Your task to perform on an android device: open a bookmark in the chrome app Image 0: 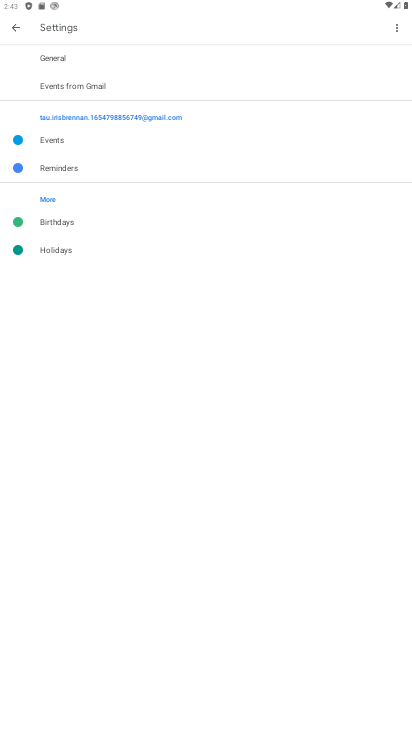
Step 0: press home button
Your task to perform on an android device: open a bookmark in the chrome app Image 1: 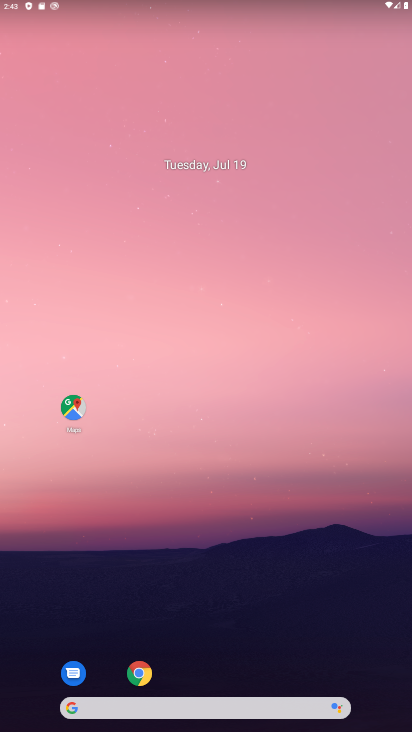
Step 1: drag from (248, 669) to (291, 172)
Your task to perform on an android device: open a bookmark in the chrome app Image 2: 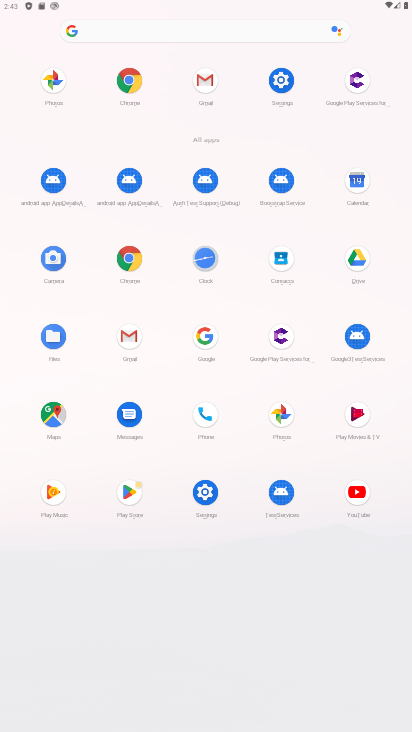
Step 2: click (138, 269)
Your task to perform on an android device: open a bookmark in the chrome app Image 3: 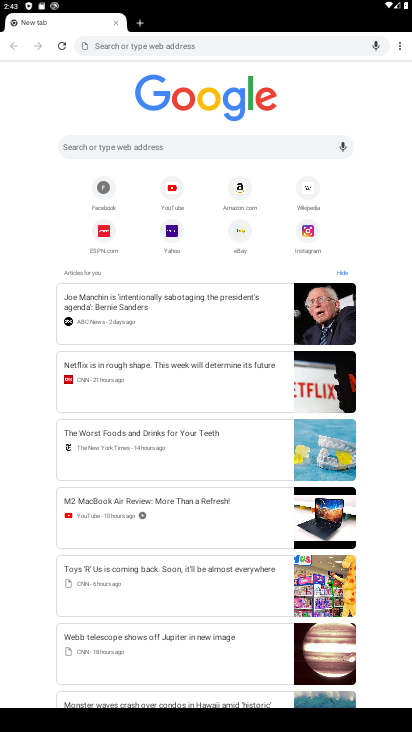
Step 3: click (398, 48)
Your task to perform on an android device: open a bookmark in the chrome app Image 4: 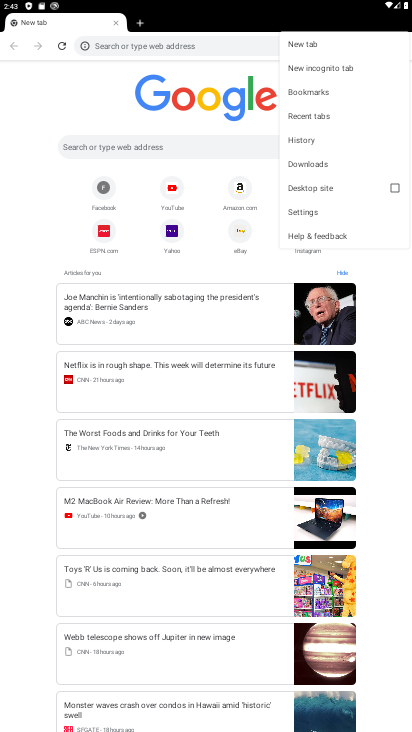
Step 4: click (319, 90)
Your task to perform on an android device: open a bookmark in the chrome app Image 5: 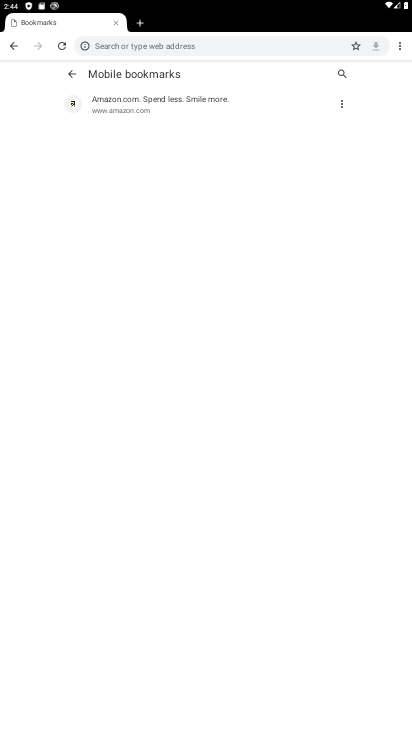
Step 5: click (211, 103)
Your task to perform on an android device: open a bookmark in the chrome app Image 6: 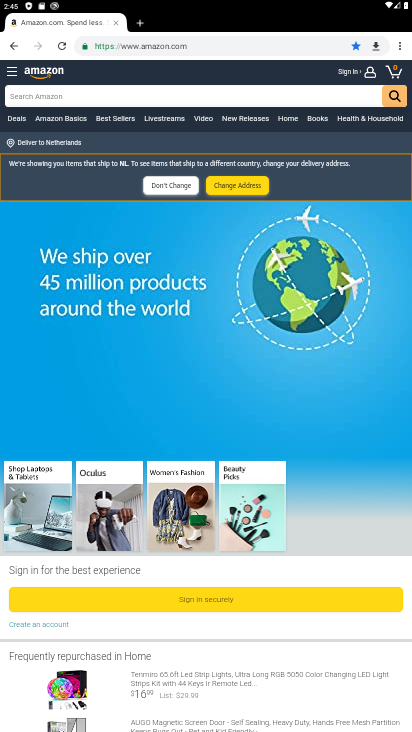
Step 6: task complete